Your task to perform on an android device: Clear all items from cart on target. Search for panasonic triple a on target, select the first entry, and add it to the cart. Image 0: 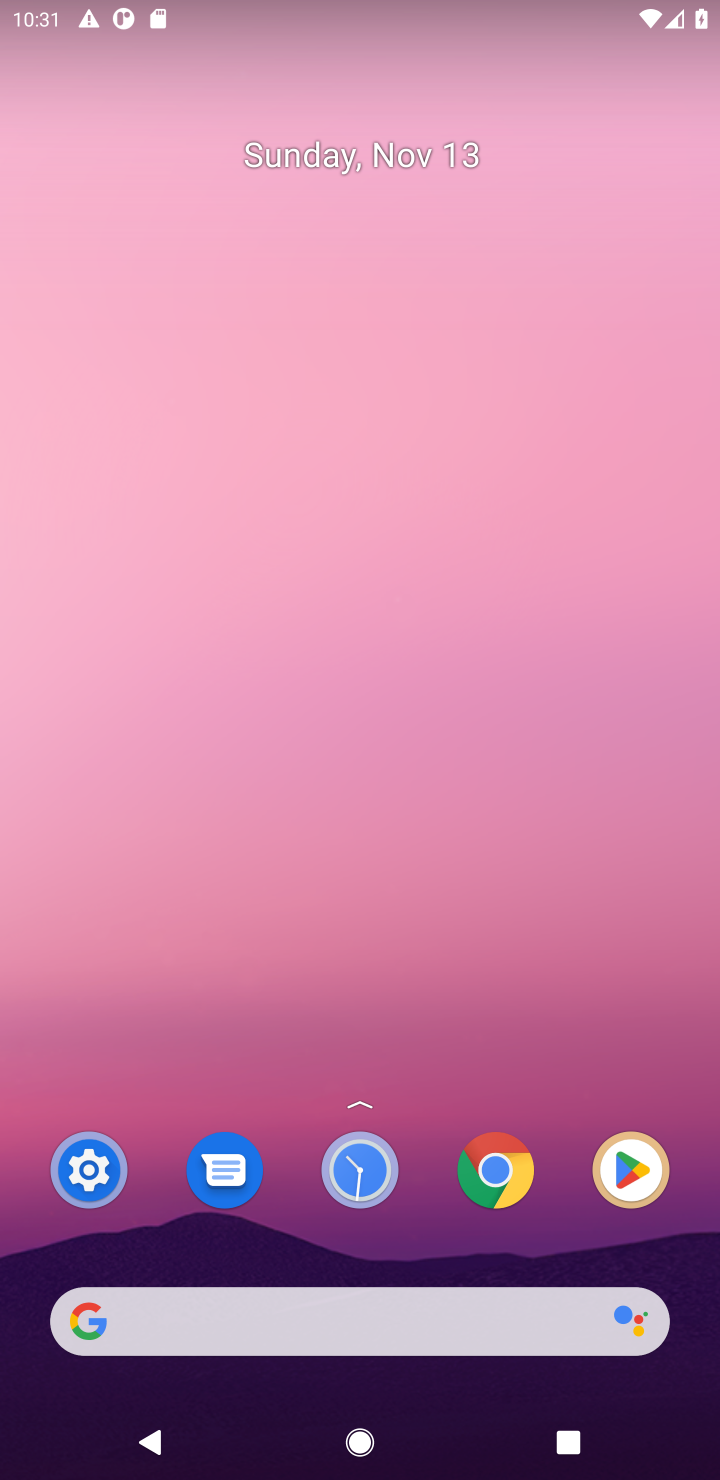
Step 0: click (468, 1334)
Your task to perform on an android device: Clear all items from cart on target. Search for panasonic triple a on target, select the first entry, and add it to the cart. Image 1: 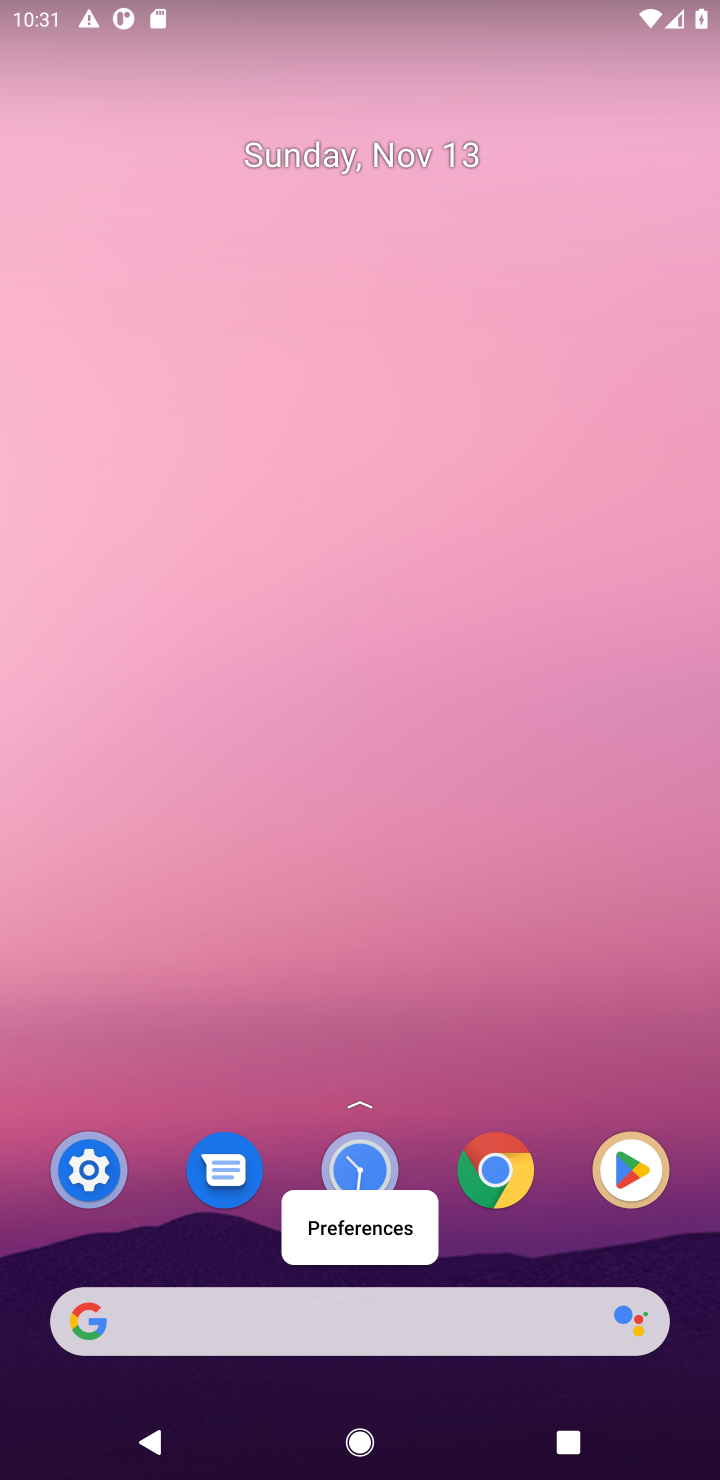
Step 1: type "target.com"
Your task to perform on an android device: Clear all items from cart on target. Search for panasonic triple a on target, select the first entry, and add it to the cart. Image 2: 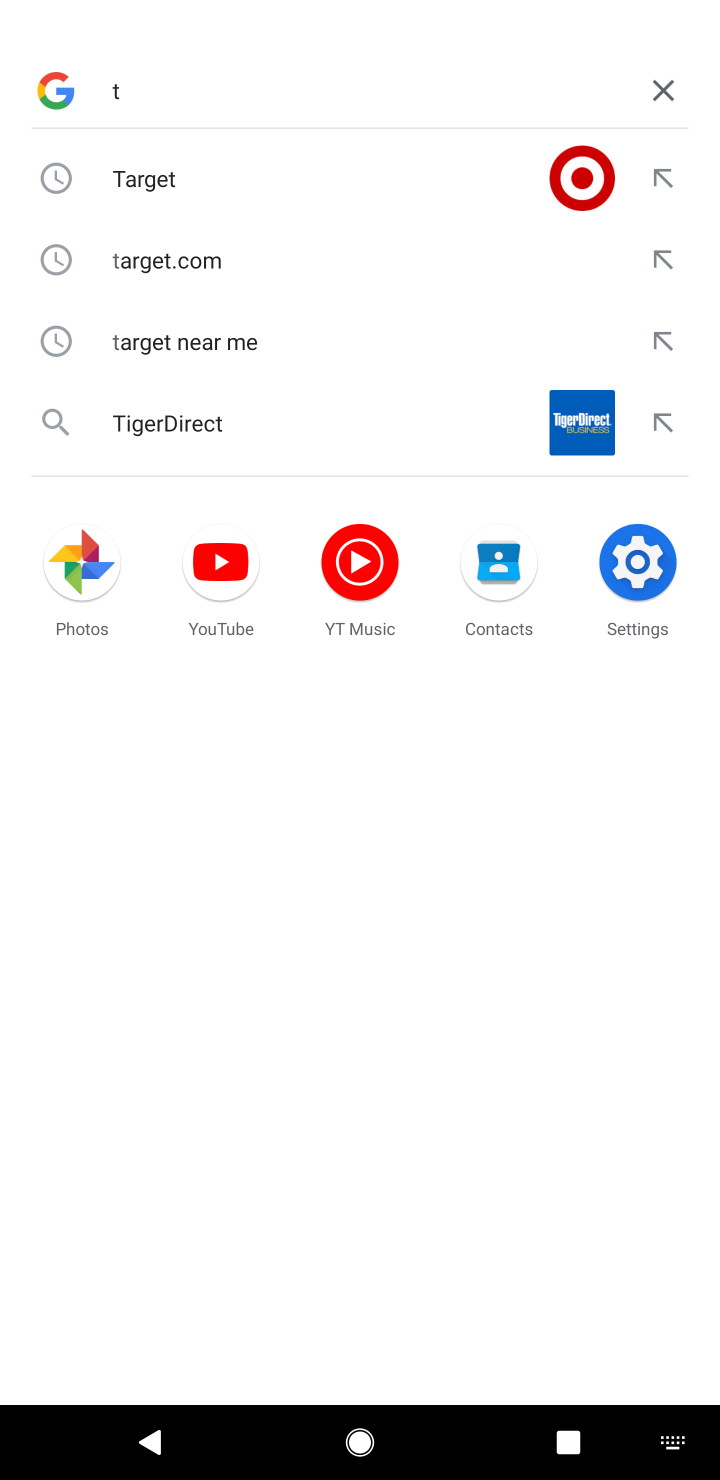
Step 2: click (248, 135)
Your task to perform on an android device: Clear all items from cart on target. Search for panasonic triple a on target, select the first entry, and add it to the cart. Image 3: 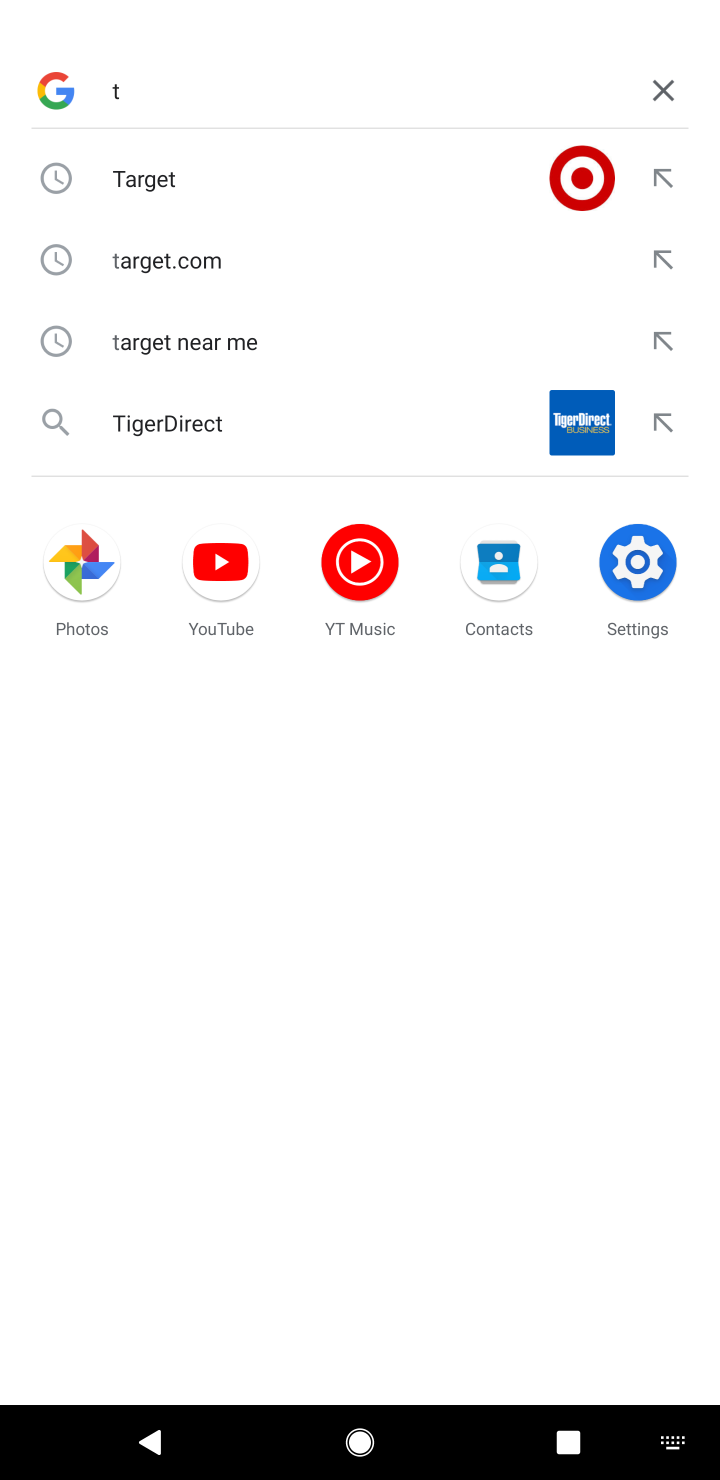
Step 3: click (243, 170)
Your task to perform on an android device: Clear all items from cart on target. Search for panasonic triple a on target, select the first entry, and add it to the cart. Image 4: 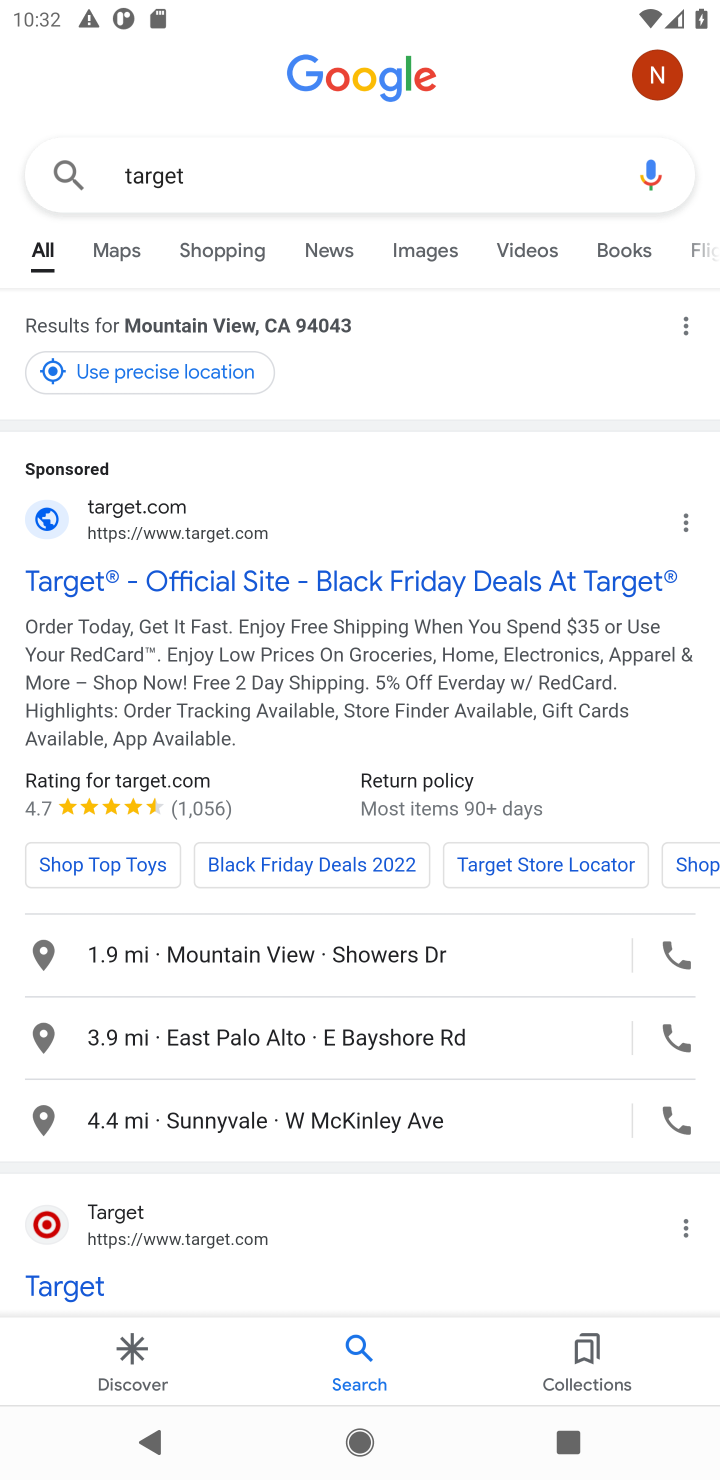
Step 4: click (154, 570)
Your task to perform on an android device: Clear all items from cart on target. Search for panasonic triple a on target, select the first entry, and add it to the cart. Image 5: 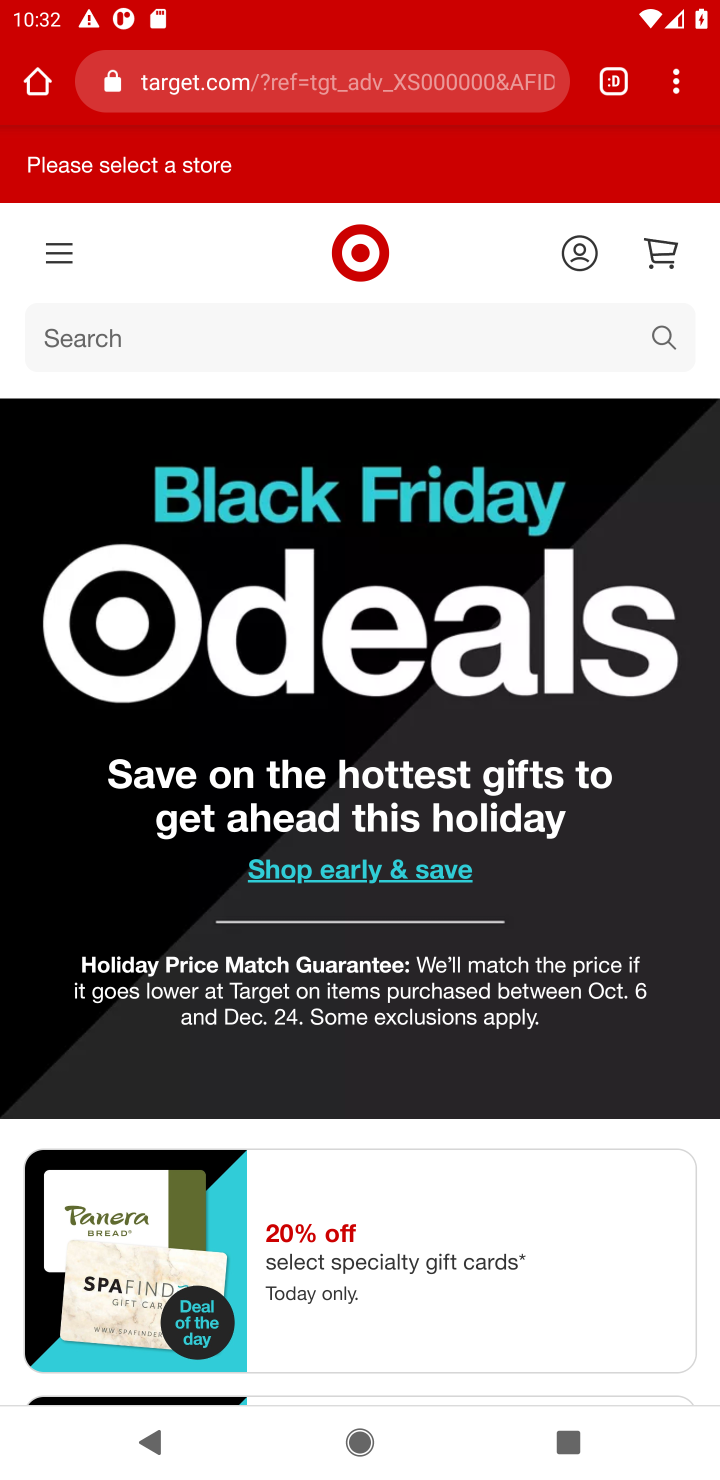
Step 5: task complete